Your task to perform on an android device: Go to battery settings Image 0: 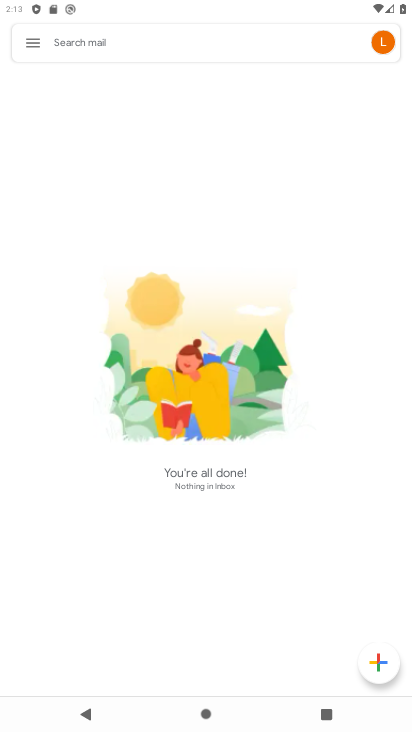
Step 0: press home button
Your task to perform on an android device: Go to battery settings Image 1: 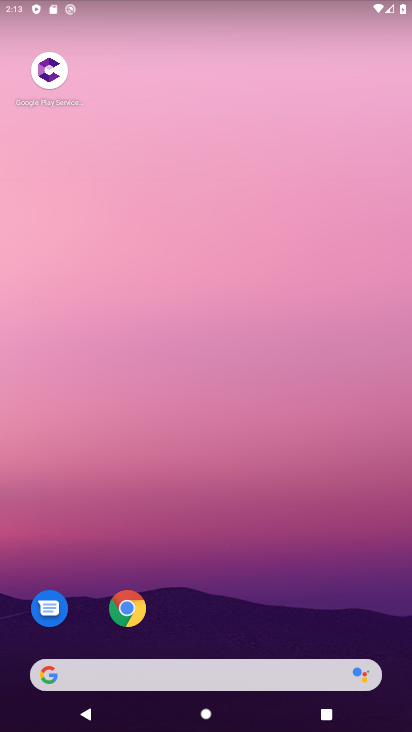
Step 1: drag from (267, 454) to (272, 102)
Your task to perform on an android device: Go to battery settings Image 2: 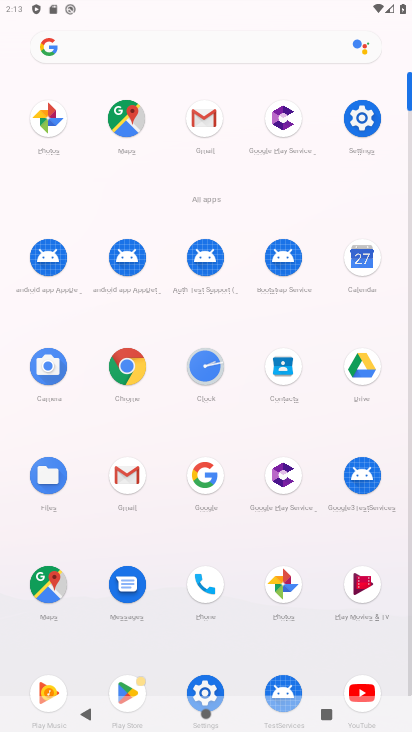
Step 2: click (364, 126)
Your task to perform on an android device: Go to battery settings Image 3: 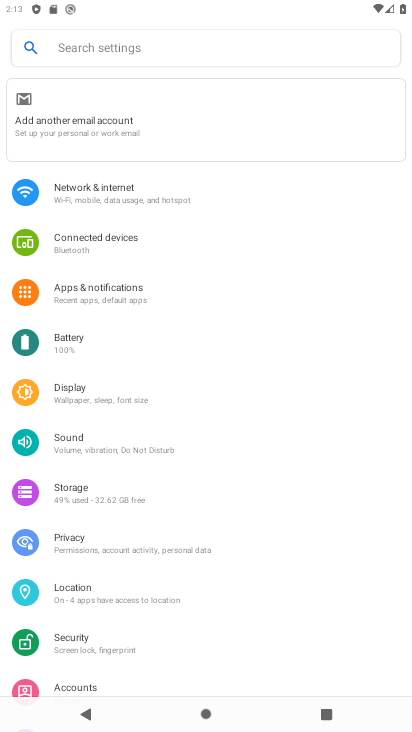
Step 3: click (66, 341)
Your task to perform on an android device: Go to battery settings Image 4: 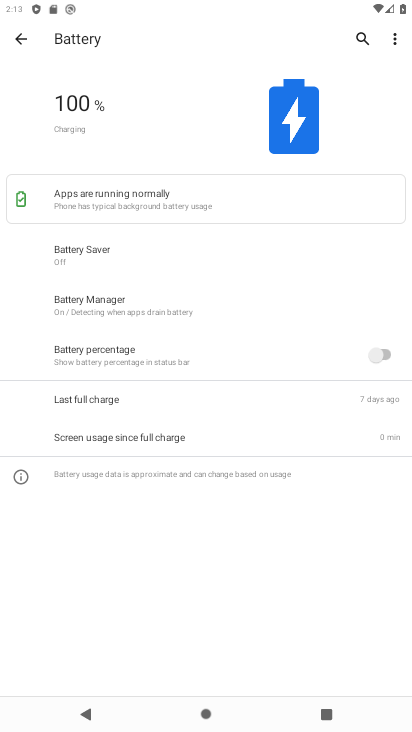
Step 4: task complete